Your task to perform on an android device: Go to ESPN.com Image 0: 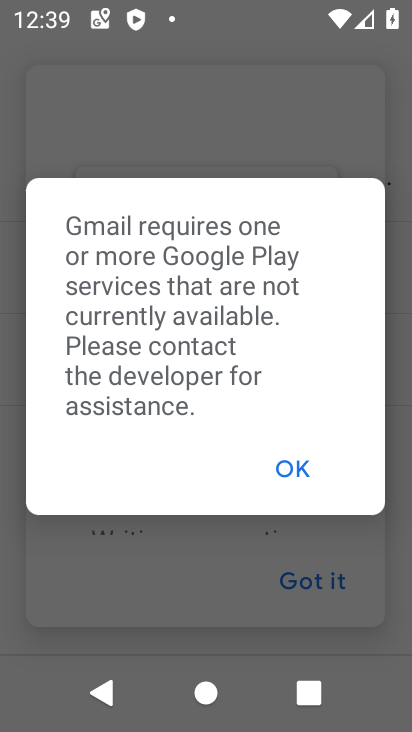
Step 0: press home button
Your task to perform on an android device: Go to ESPN.com Image 1: 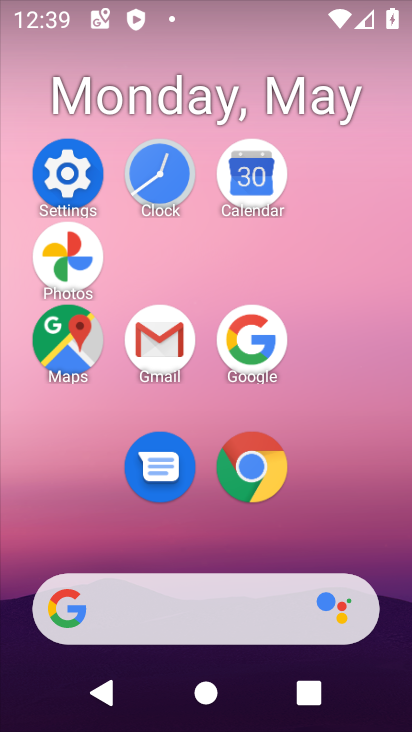
Step 1: click (267, 461)
Your task to perform on an android device: Go to ESPN.com Image 2: 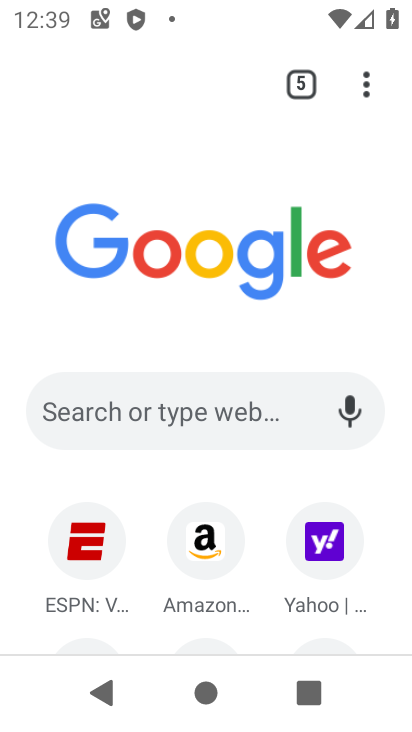
Step 2: click (100, 537)
Your task to perform on an android device: Go to ESPN.com Image 3: 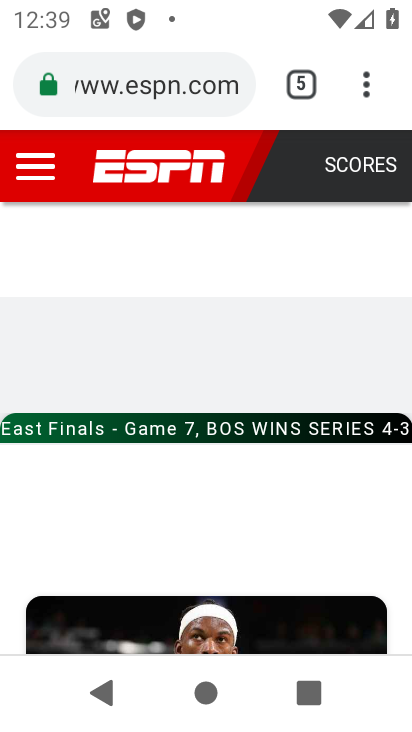
Step 3: task complete